Your task to perform on an android device: check the backup settings in the google photos Image 0: 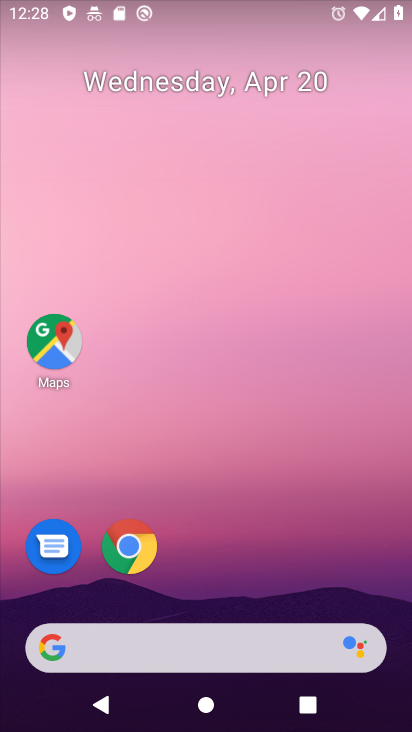
Step 0: drag from (236, 547) to (224, 1)
Your task to perform on an android device: check the backup settings in the google photos Image 1: 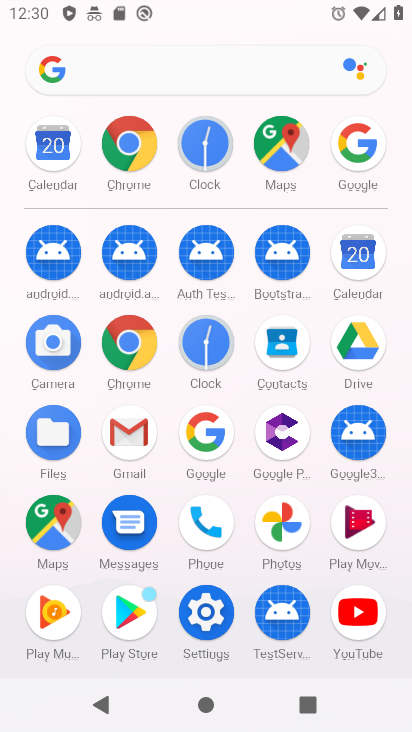
Step 1: click (266, 522)
Your task to perform on an android device: check the backup settings in the google photos Image 2: 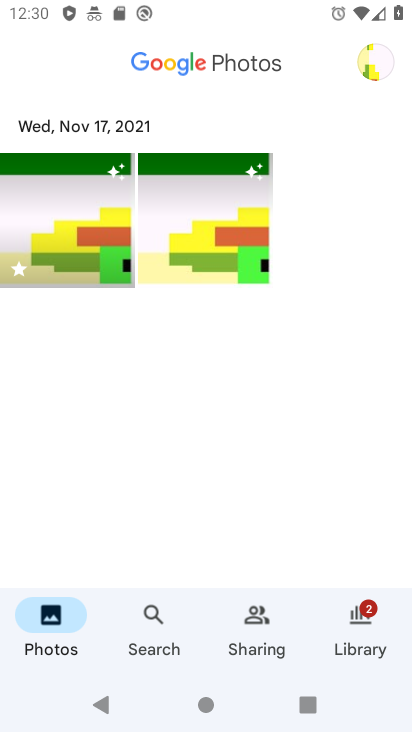
Step 2: click (393, 63)
Your task to perform on an android device: check the backup settings in the google photos Image 3: 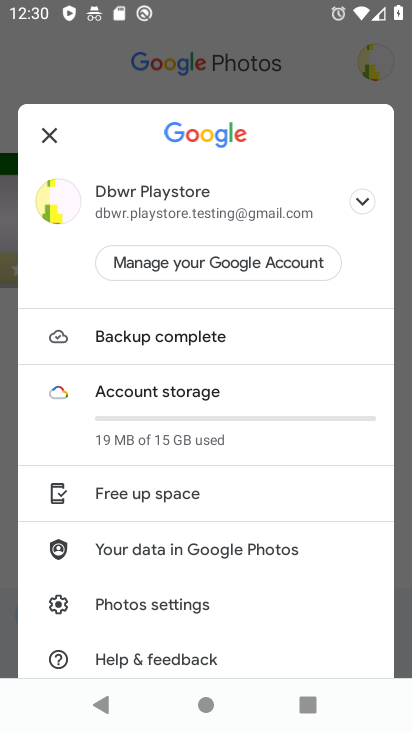
Step 3: click (195, 612)
Your task to perform on an android device: check the backup settings in the google photos Image 4: 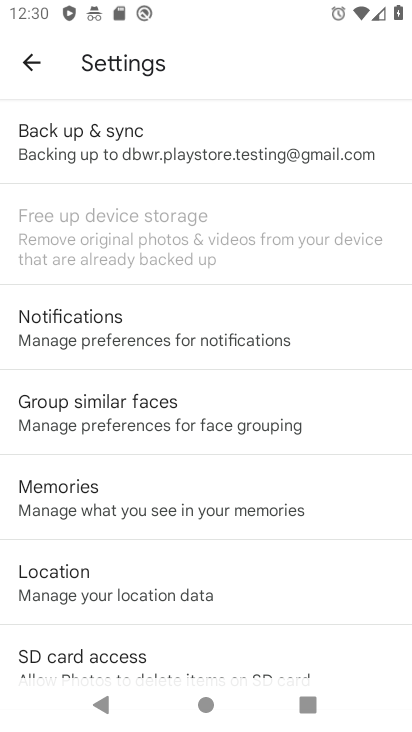
Step 4: click (274, 155)
Your task to perform on an android device: check the backup settings in the google photos Image 5: 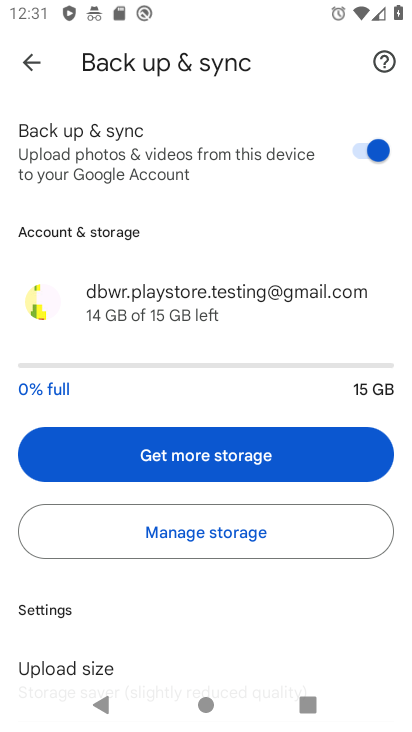
Step 5: click (218, 156)
Your task to perform on an android device: check the backup settings in the google photos Image 6: 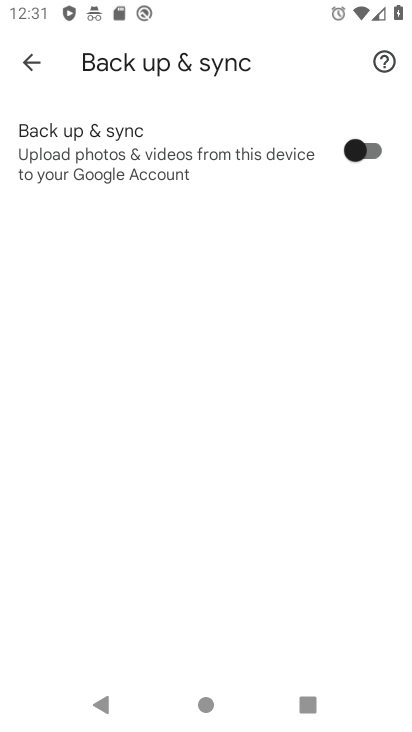
Step 6: click (218, 156)
Your task to perform on an android device: check the backup settings in the google photos Image 7: 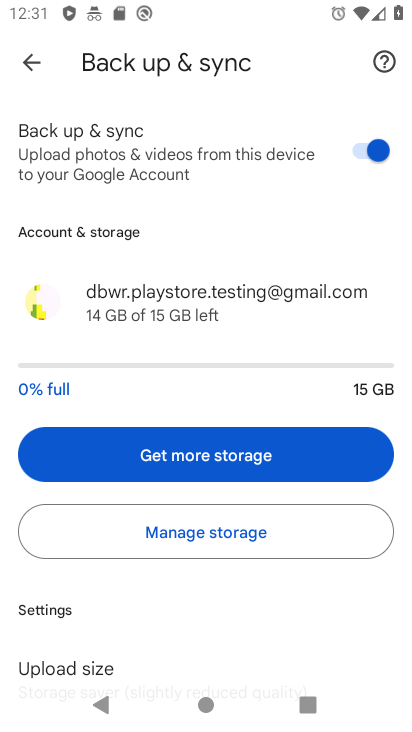
Step 7: task complete